Your task to perform on an android device: Go to battery settings Image 0: 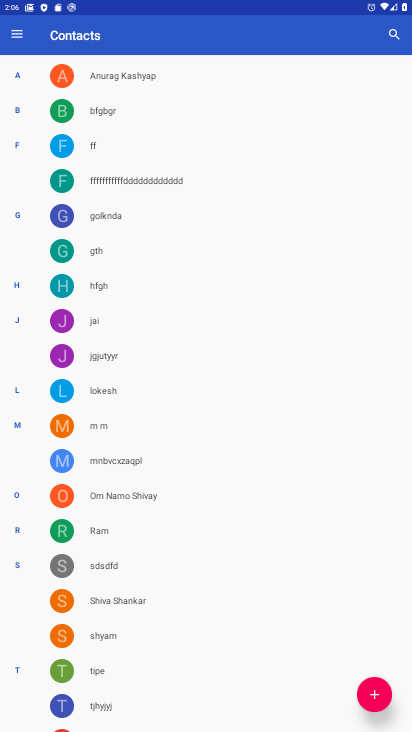
Step 0: press home button
Your task to perform on an android device: Go to battery settings Image 1: 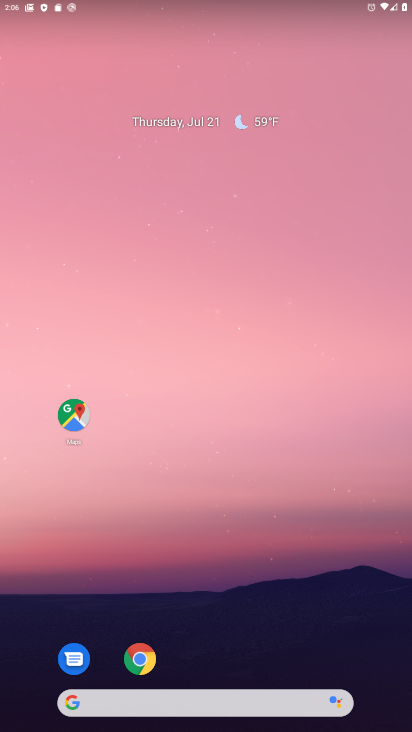
Step 1: drag from (295, 617) to (292, 56)
Your task to perform on an android device: Go to battery settings Image 2: 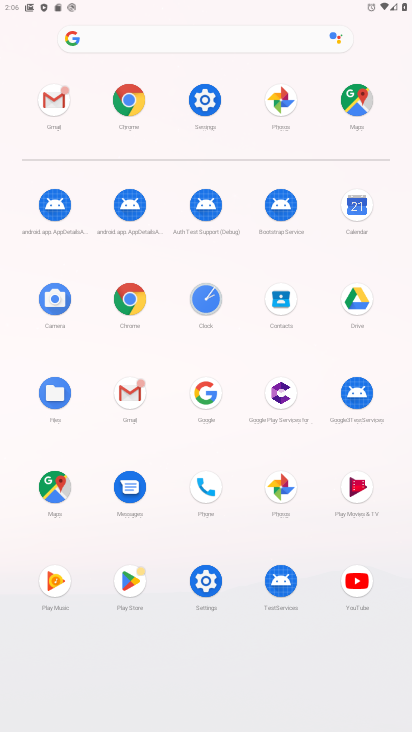
Step 2: click (214, 99)
Your task to perform on an android device: Go to battery settings Image 3: 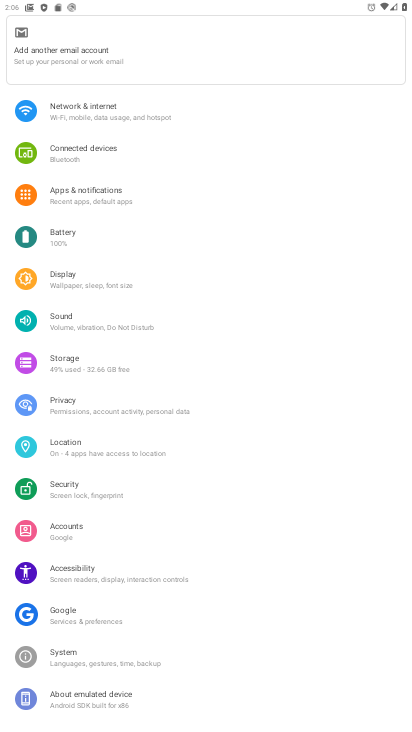
Step 3: click (71, 234)
Your task to perform on an android device: Go to battery settings Image 4: 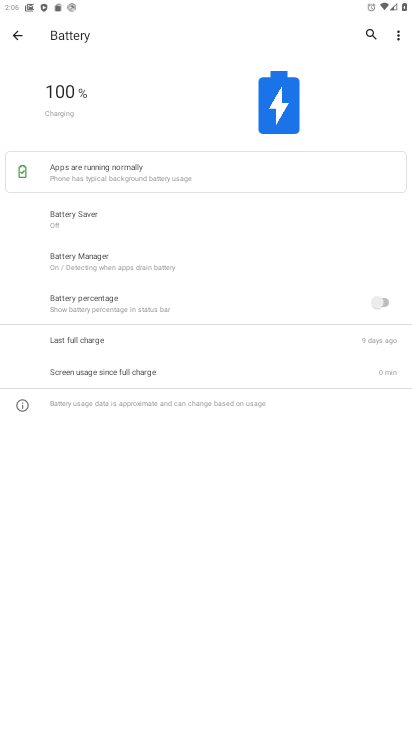
Step 4: task complete